Your task to perform on an android device: Search for the best rated vacuums on Target Image 0: 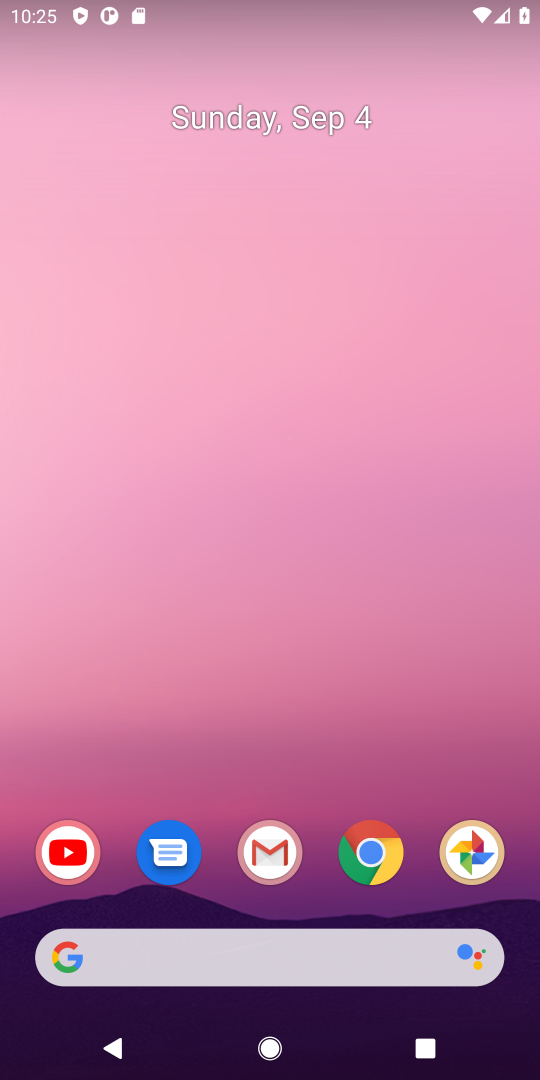
Step 0: click (255, 50)
Your task to perform on an android device: Search for the best rated vacuums on Target Image 1: 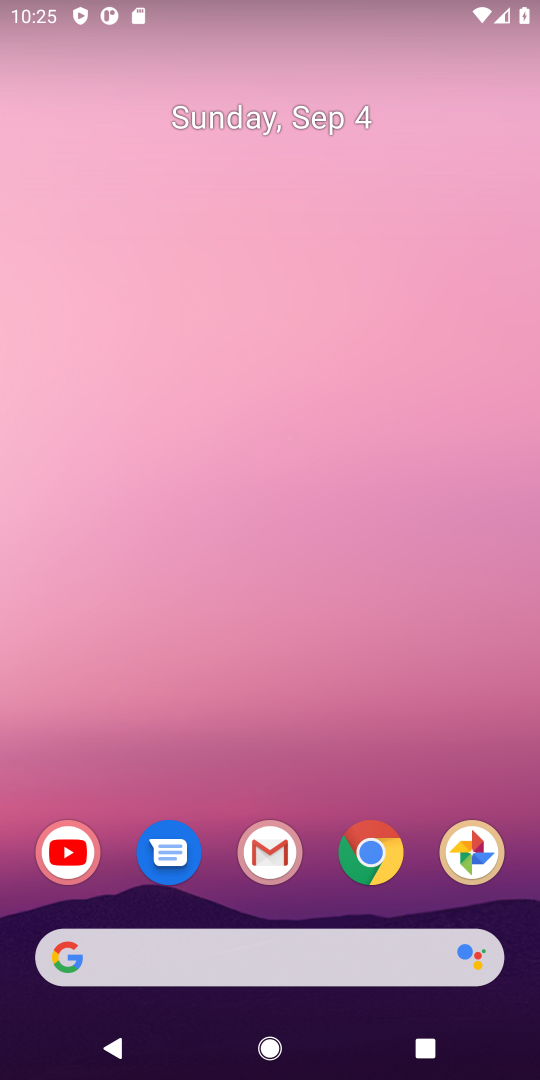
Step 1: drag from (298, 247) to (197, 9)
Your task to perform on an android device: Search for the best rated vacuums on Target Image 2: 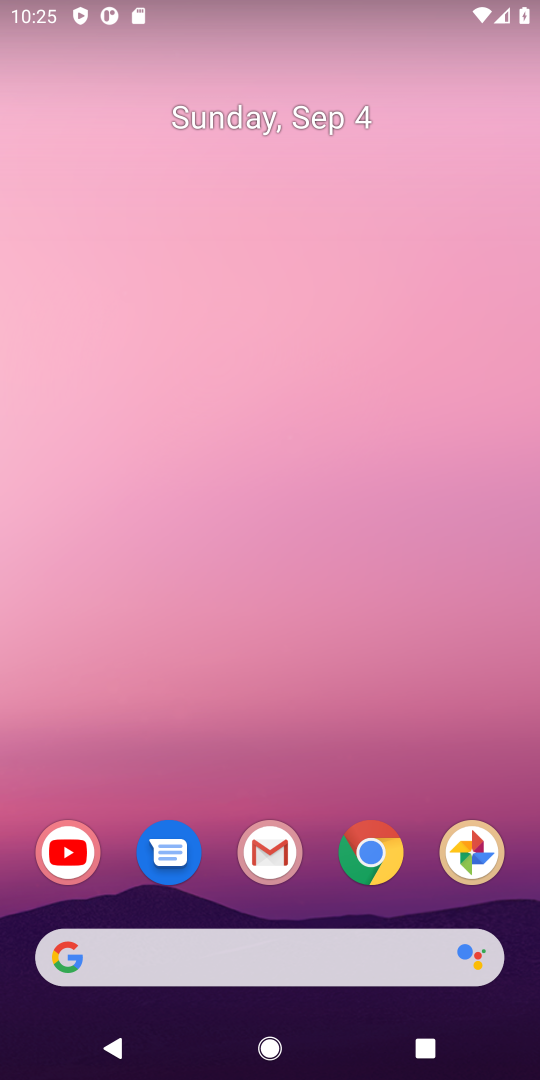
Step 2: drag from (418, 908) to (23, 13)
Your task to perform on an android device: Search for the best rated vacuums on Target Image 3: 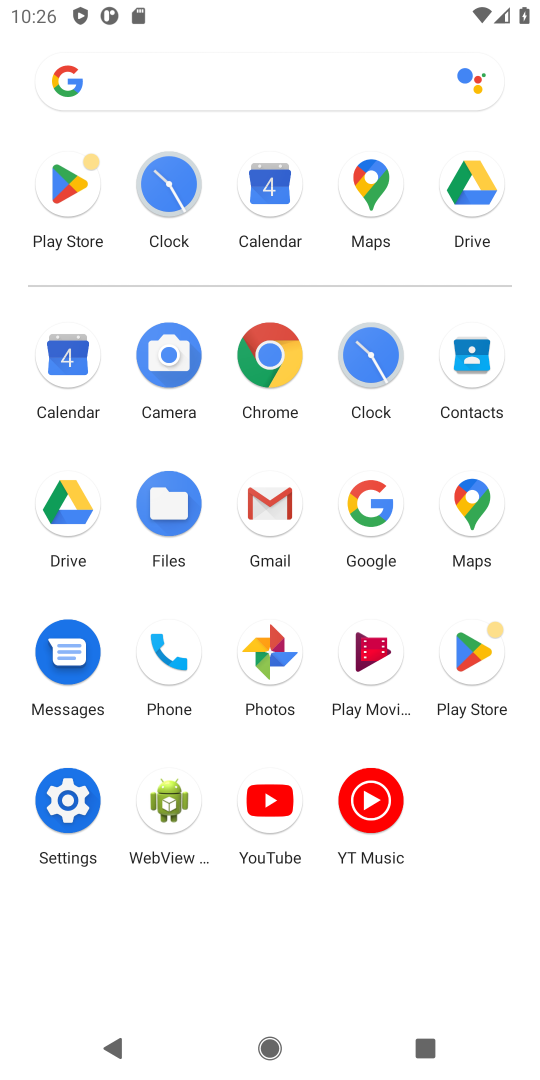
Step 3: click (355, 526)
Your task to perform on an android device: Search for the best rated vacuums on Target Image 4: 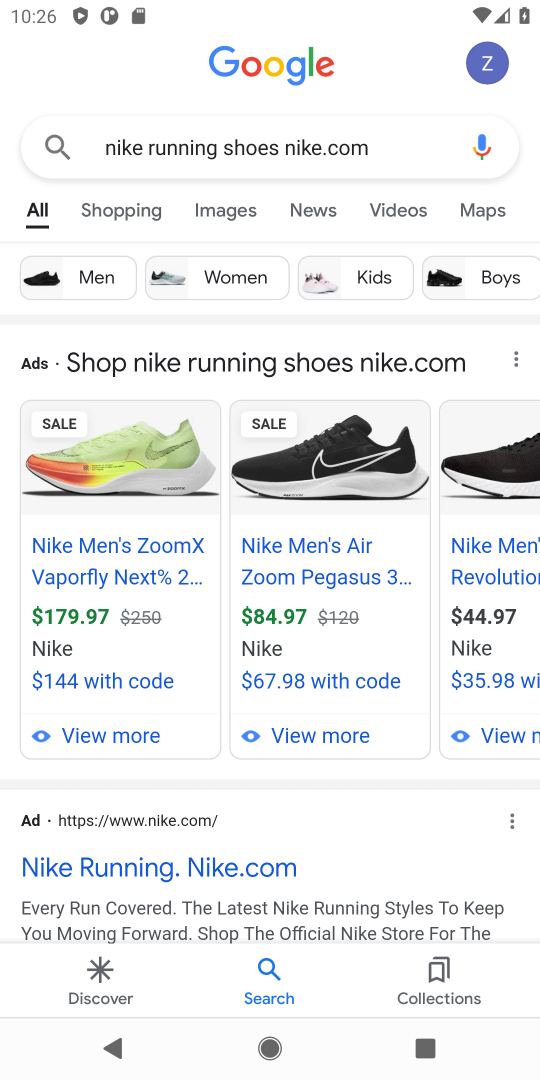
Step 4: press back button
Your task to perform on an android device: Search for the best rated vacuums on Target Image 5: 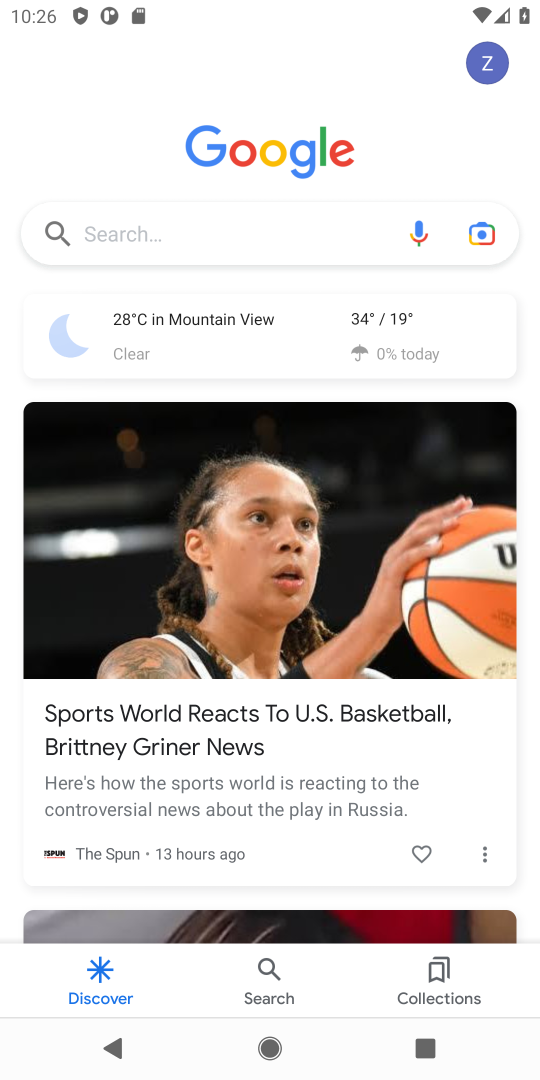
Step 5: click (167, 229)
Your task to perform on an android device: Search for the best rated vacuums on Target Image 6: 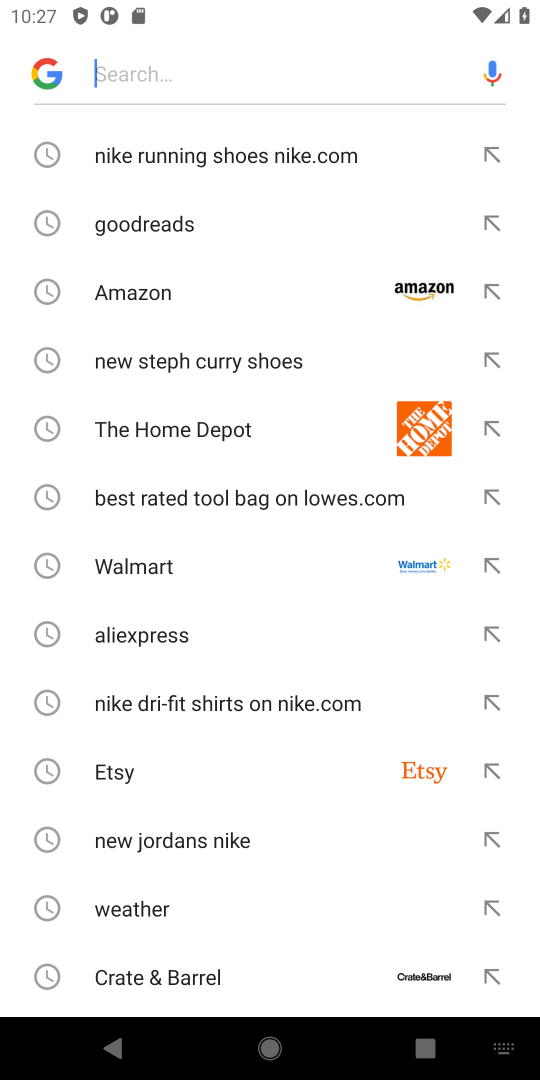
Step 6: type "best rated vacuums on Target"
Your task to perform on an android device: Search for the best rated vacuums on Target Image 7: 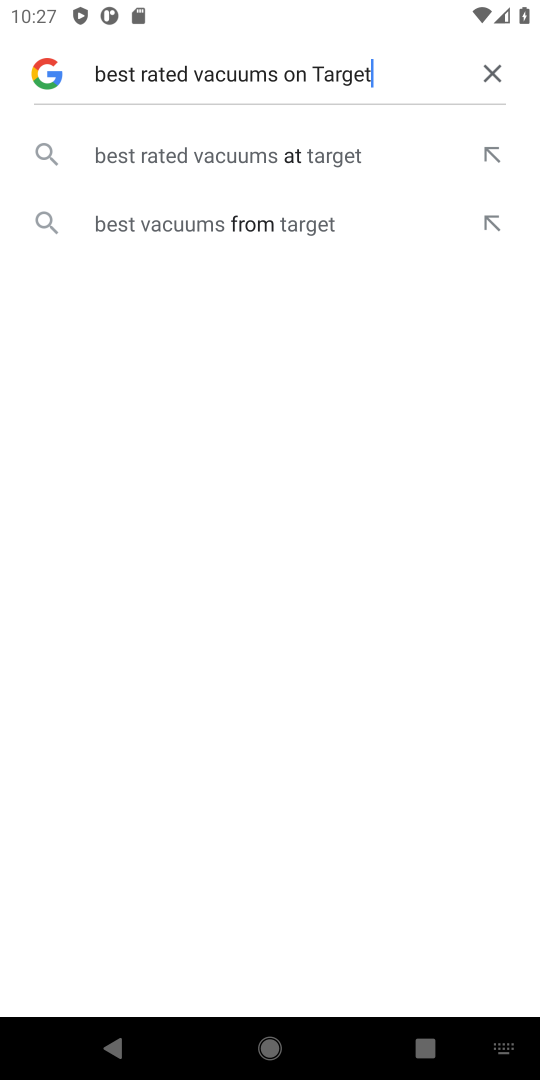
Step 7: click (225, 142)
Your task to perform on an android device: Search for the best rated vacuums on Target Image 8: 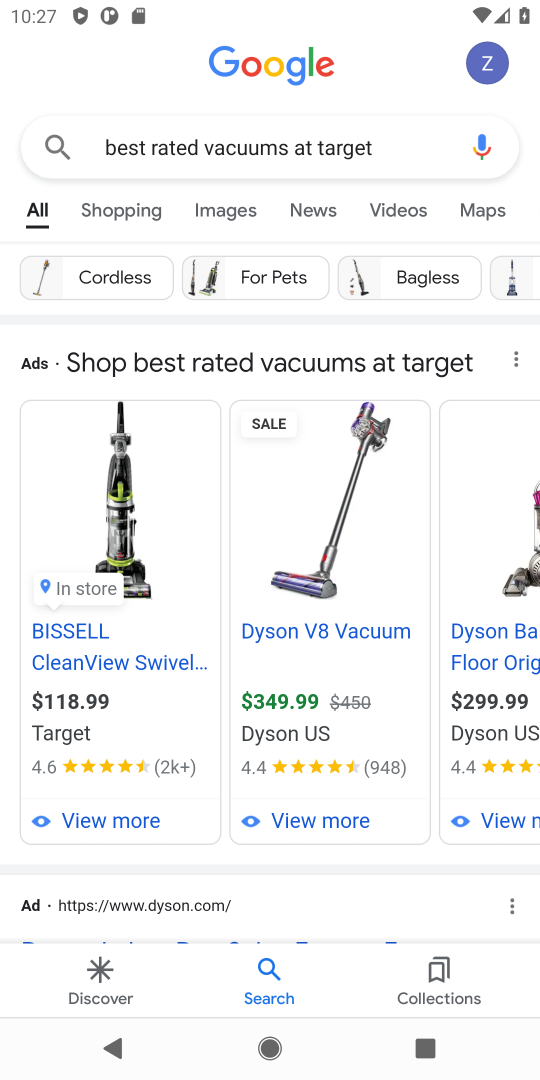
Step 8: task complete